Your task to perform on an android device: set default search engine in the chrome app Image 0: 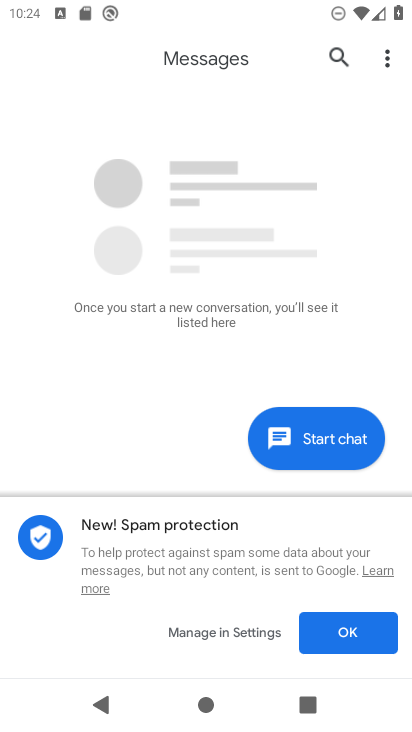
Step 0: press home button
Your task to perform on an android device: set default search engine in the chrome app Image 1: 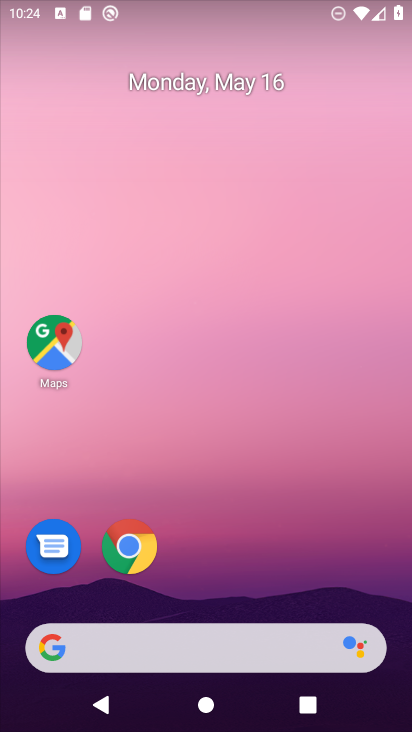
Step 1: click (151, 558)
Your task to perform on an android device: set default search engine in the chrome app Image 2: 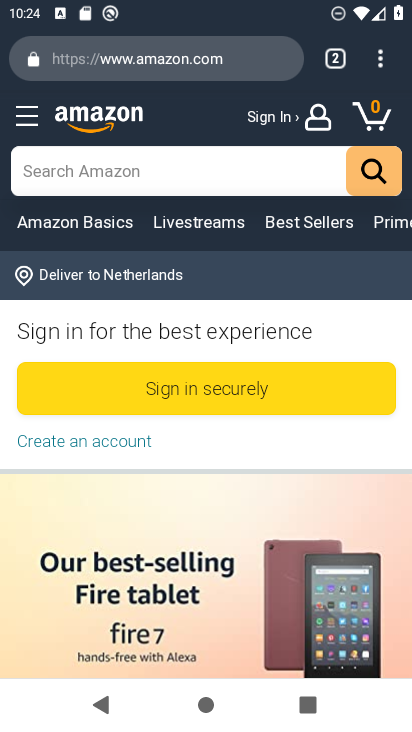
Step 2: click (390, 56)
Your task to perform on an android device: set default search engine in the chrome app Image 3: 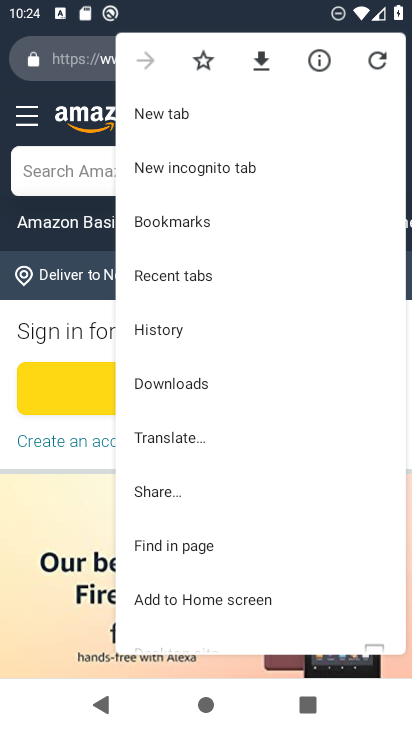
Step 3: drag from (196, 604) to (296, 147)
Your task to perform on an android device: set default search engine in the chrome app Image 4: 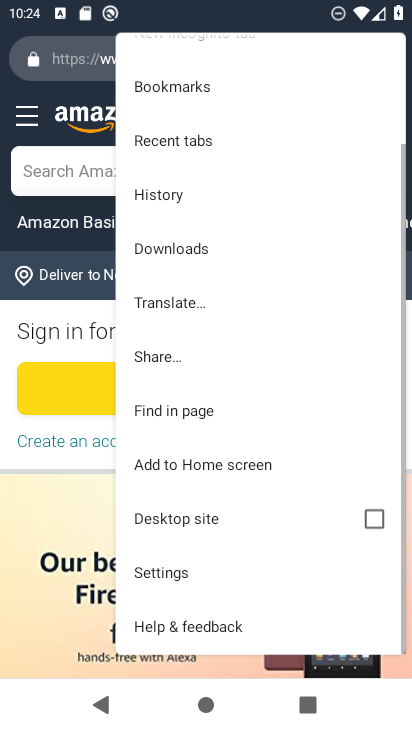
Step 4: click (169, 562)
Your task to perform on an android device: set default search engine in the chrome app Image 5: 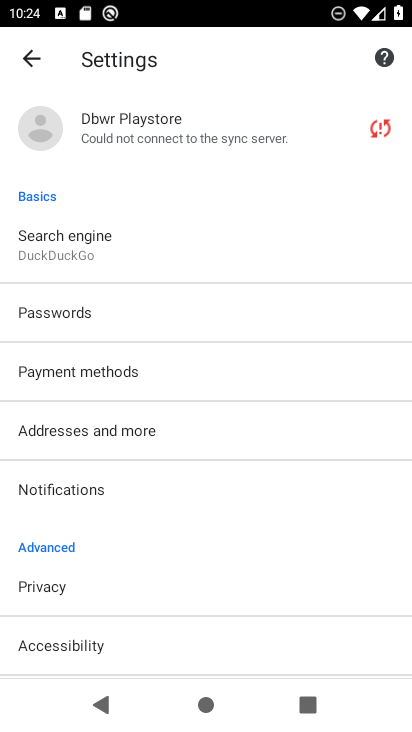
Step 5: click (160, 246)
Your task to perform on an android device: set default search engine in the chrome app Image 6: 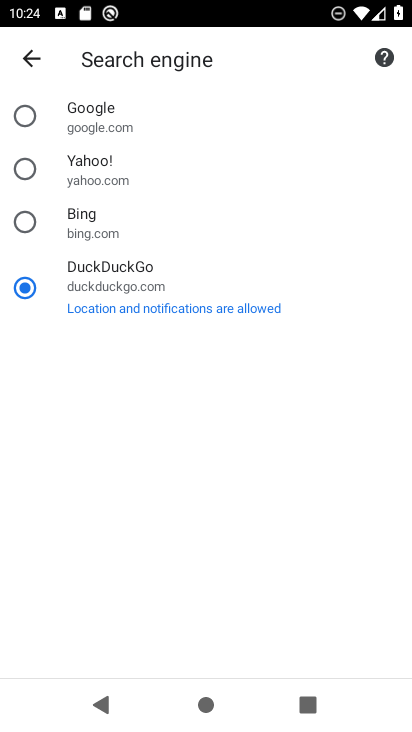
Step 6: click (160, 246)
Your task to perform on an android device: set default search engine in the chrome app Image 7: 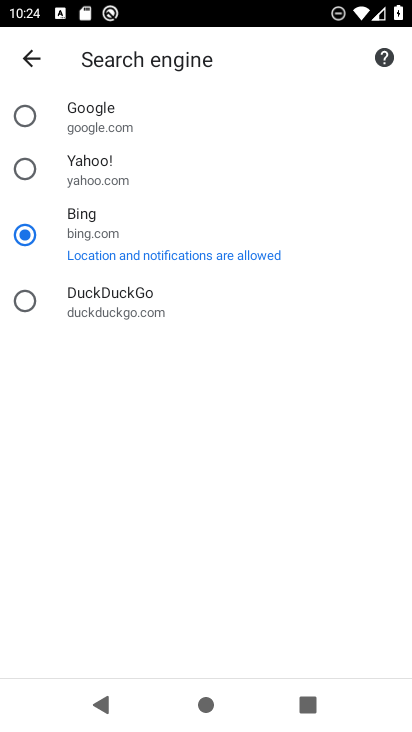
Step 7: task complete